Your task to perform on an android device: stop showing notifications on the lock screen Image 0: 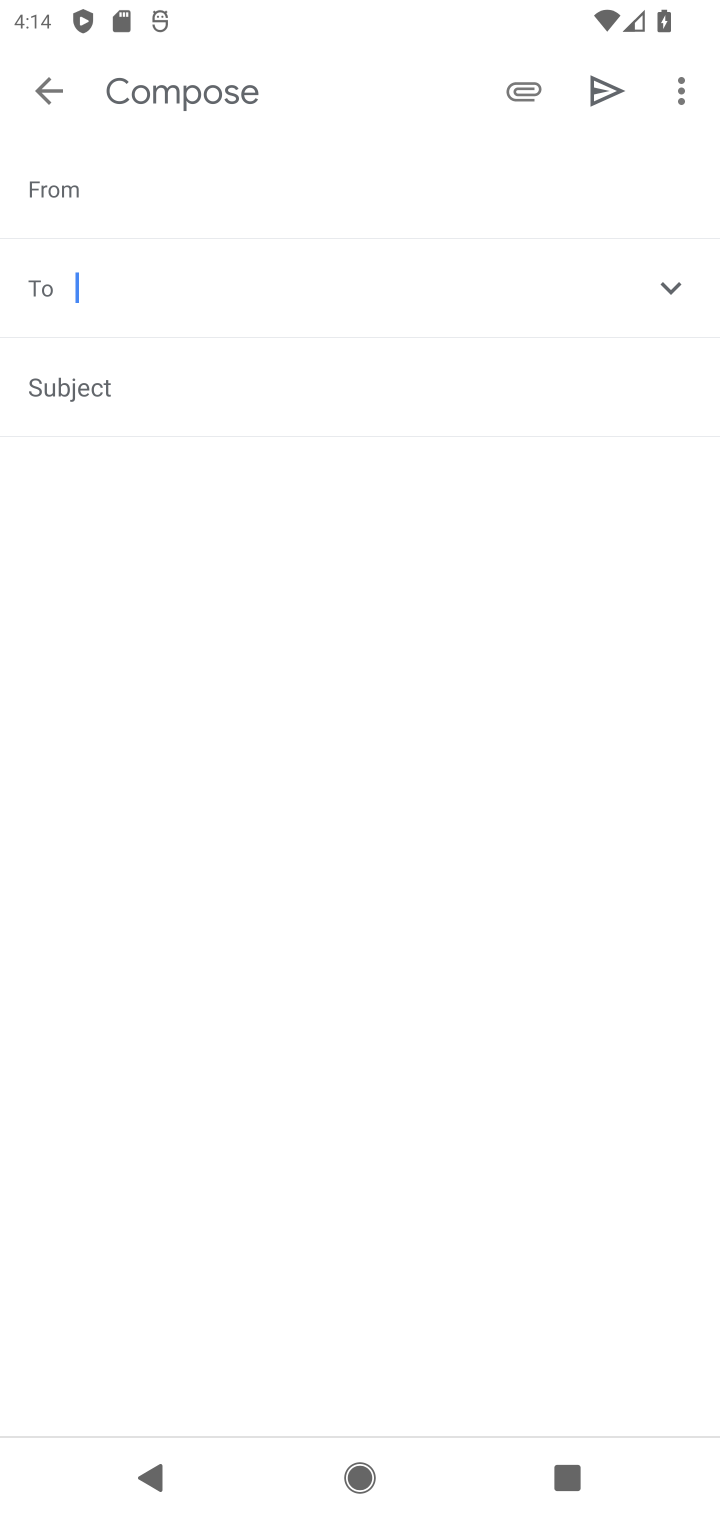
Step 0: press home button
Your task to perform on an android device: stop showing notifications on the lock screen Image 1: 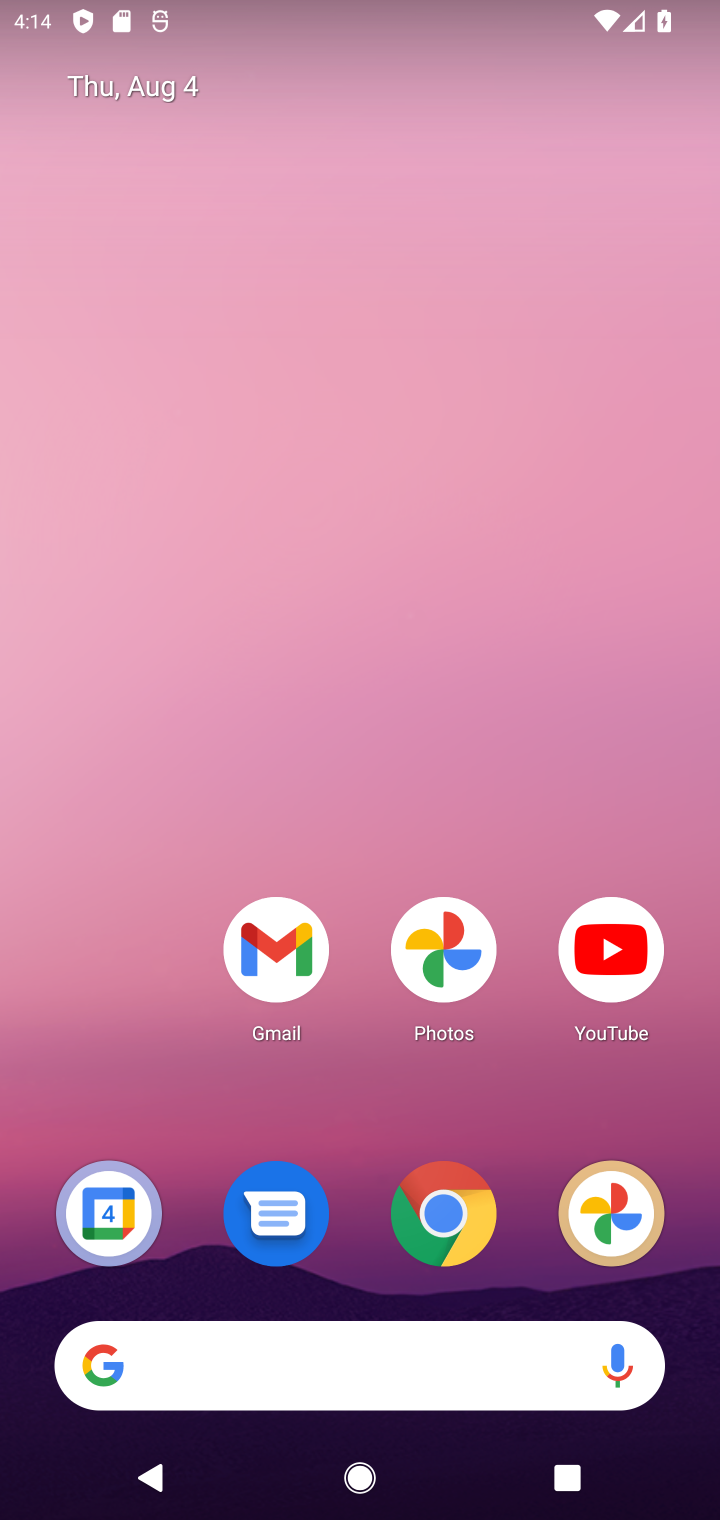
Step 1: drag from (179, 1174) to (174, 361)
Your task to perform on an android device: stop showing notifications on the lock screen Image 2: 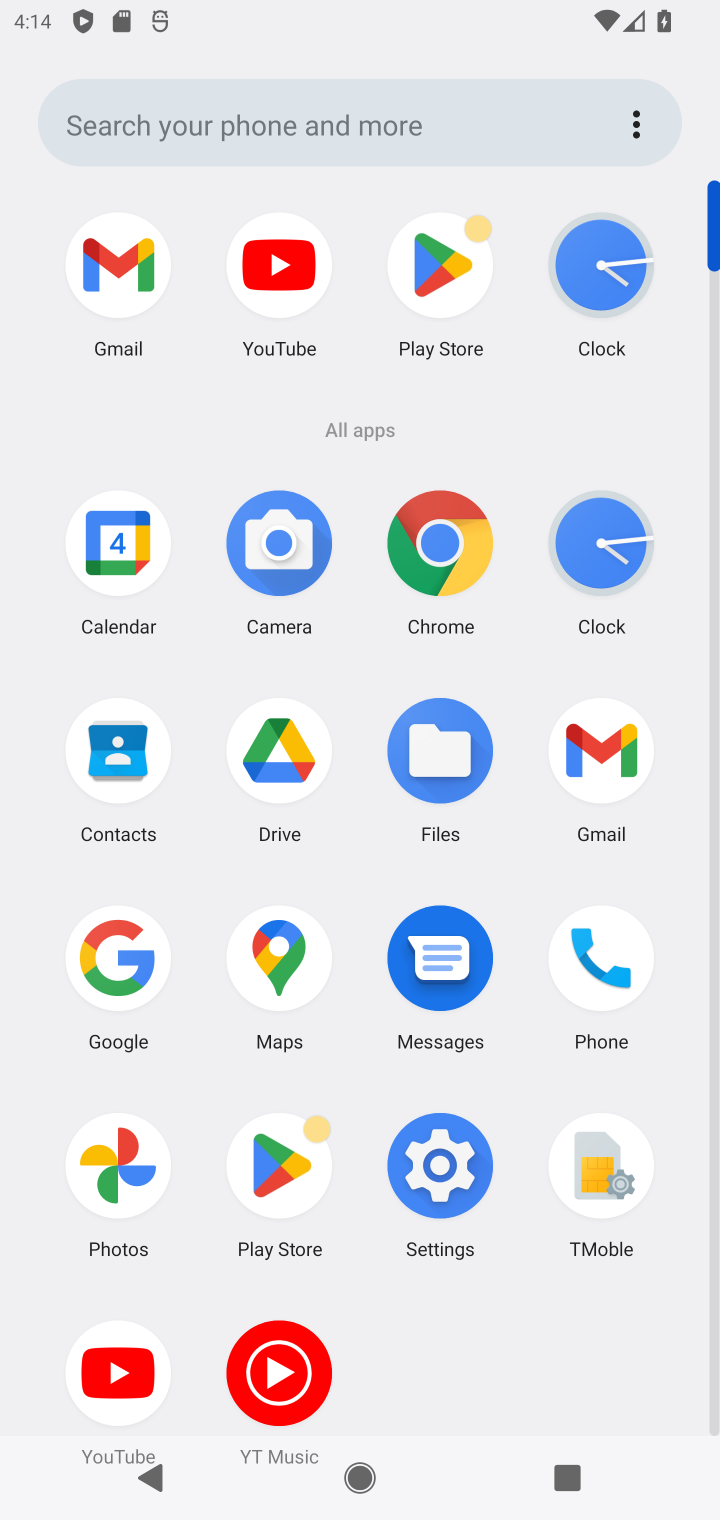
Step 2: click (443, 1174)
Your task to perform on an android device: stop showing notifications on the lock screen Image 3: 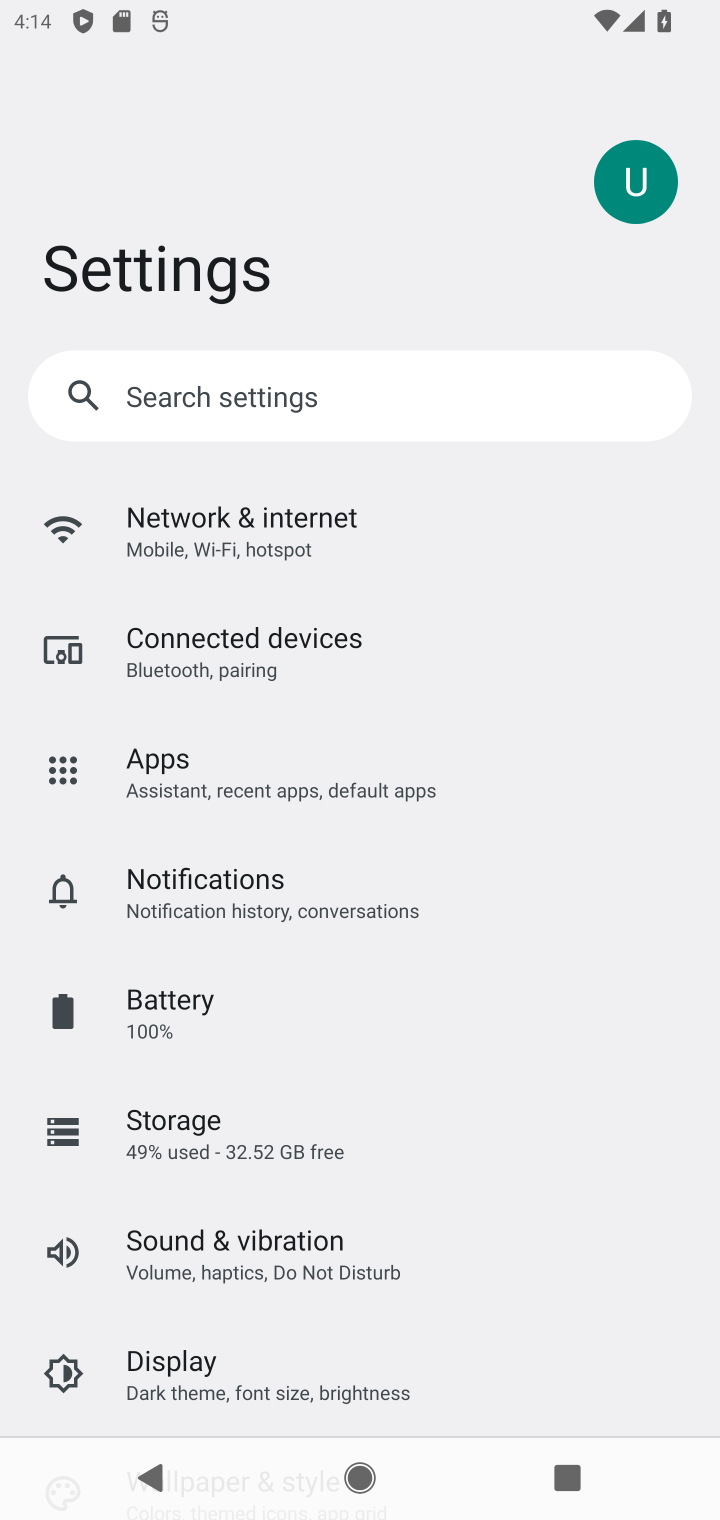
Step 3: click (329, 896)
Your task to perform on an android device: stop showing notifications on the lock screen Image 4: 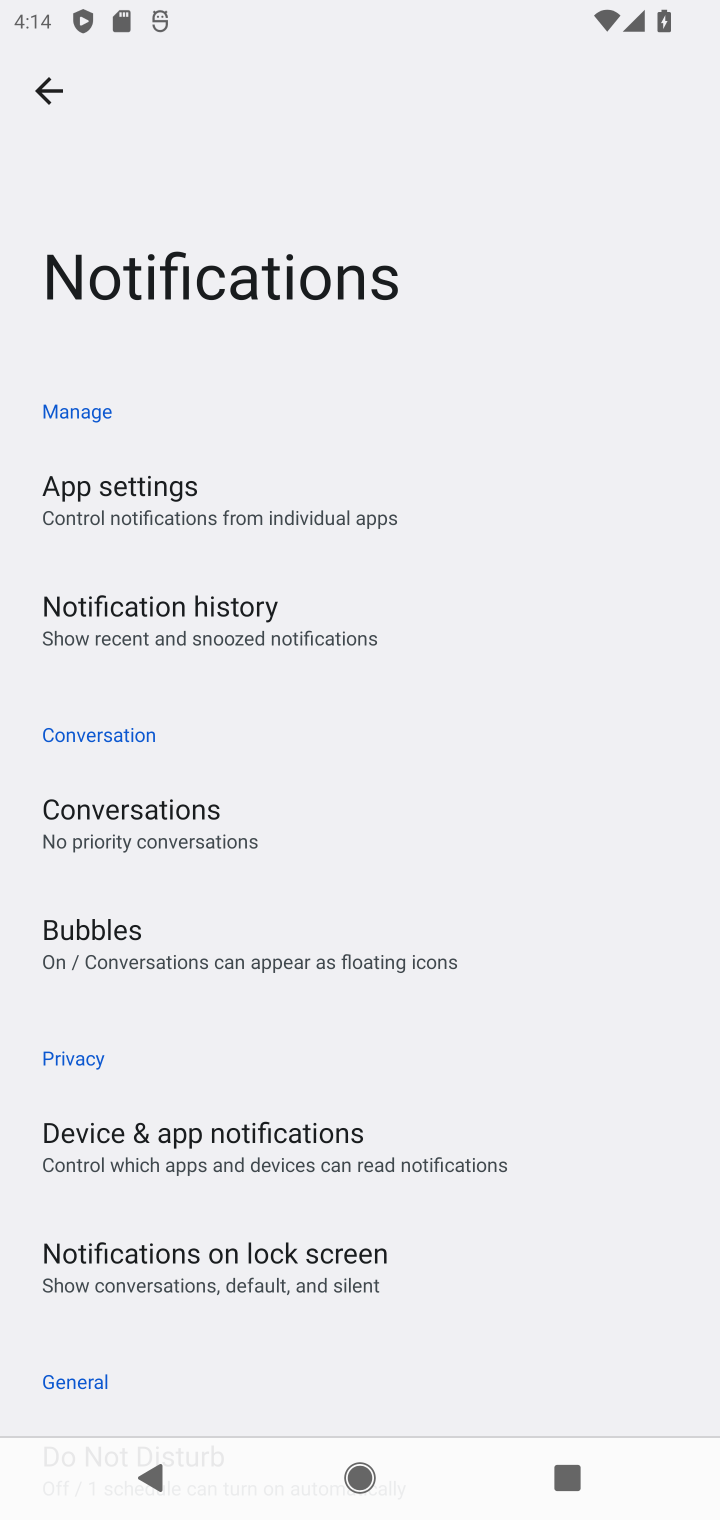
Step 4: drag from (587, 1171) to (627, 1004)
Your task to perform on an android device: stop showing notifications on the lock screen Image 5: 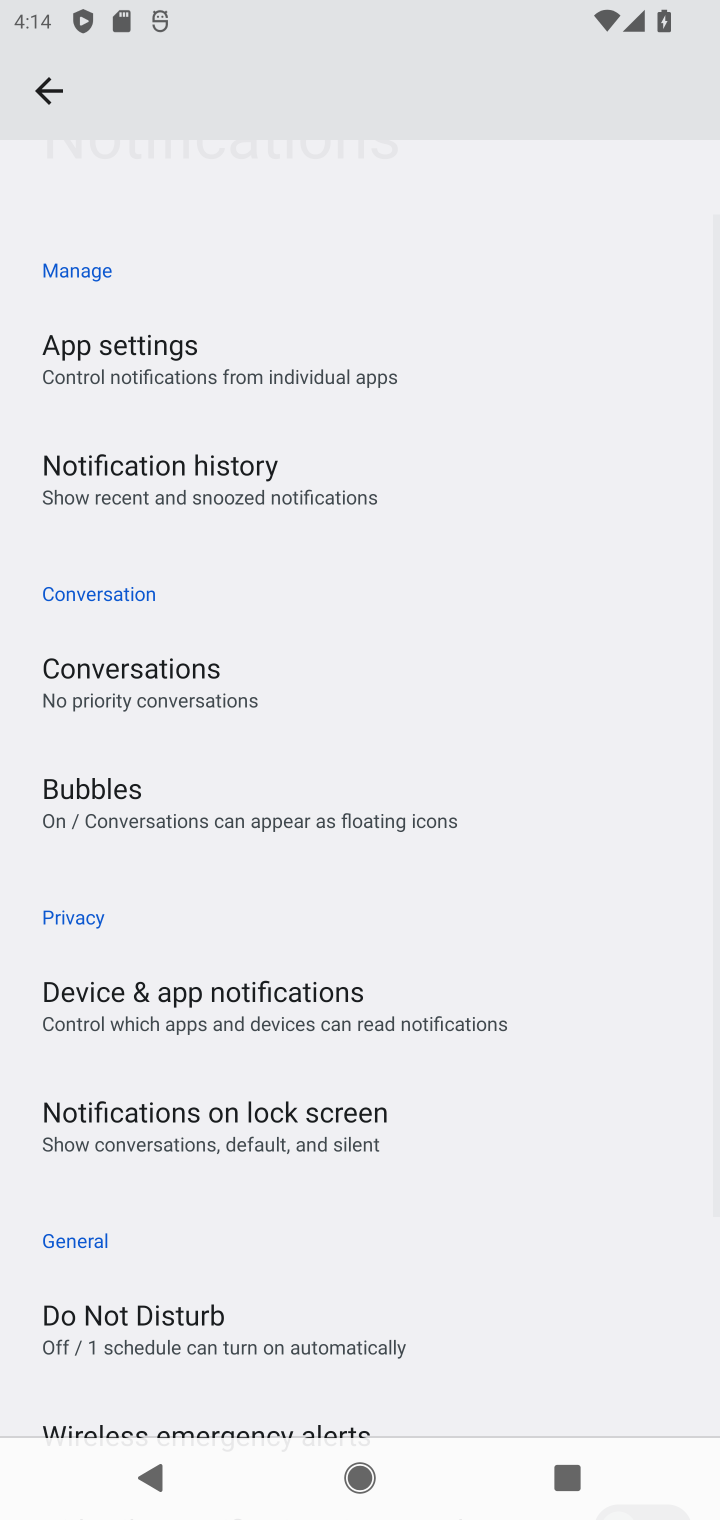
Step 5: drag from (612, 1144) to (636, 971)
Your task to perform on an android device: stop showing notifications on the lock screen Image 6: 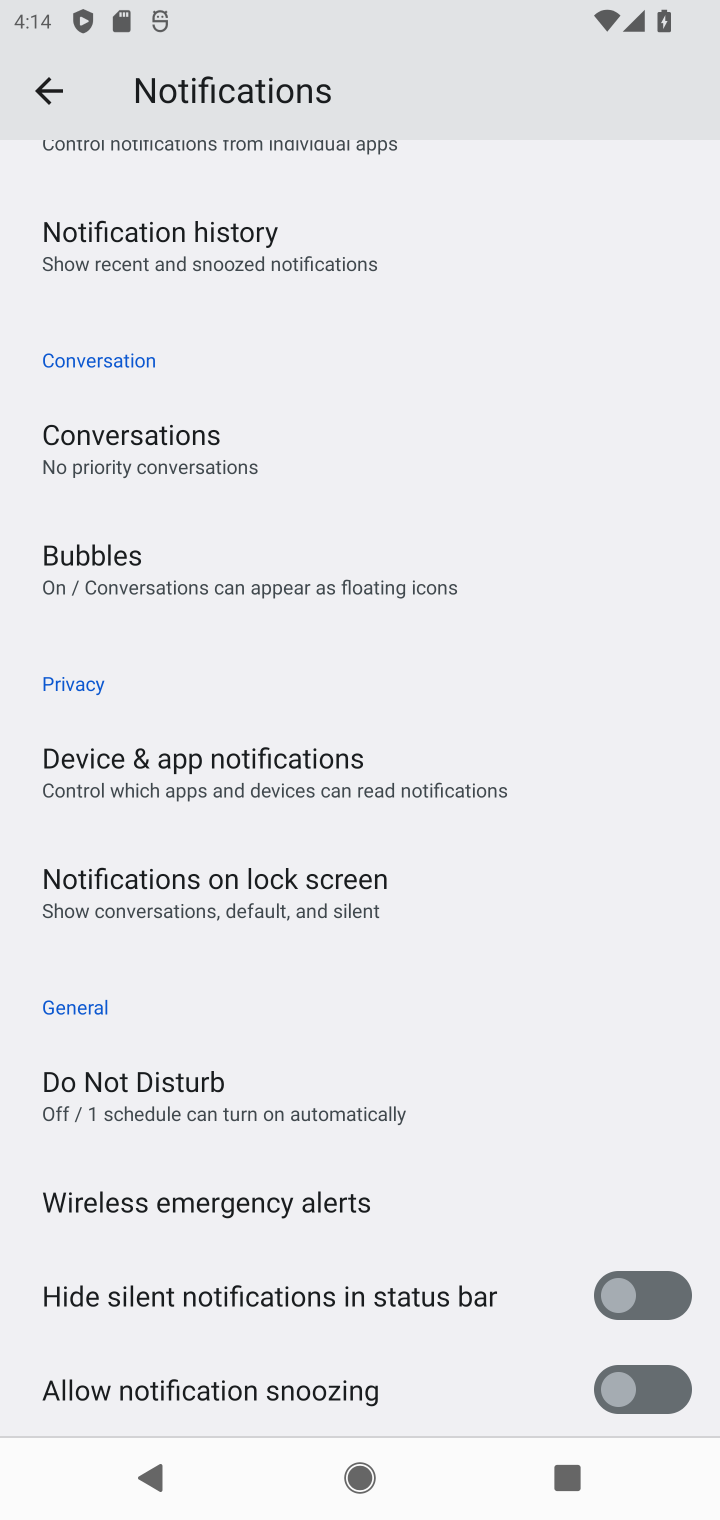
Step 6: drag from (520, 1182) to (524, 918)
Your task to perform on an android device: stop showing notifications on the lock screen Image 7: 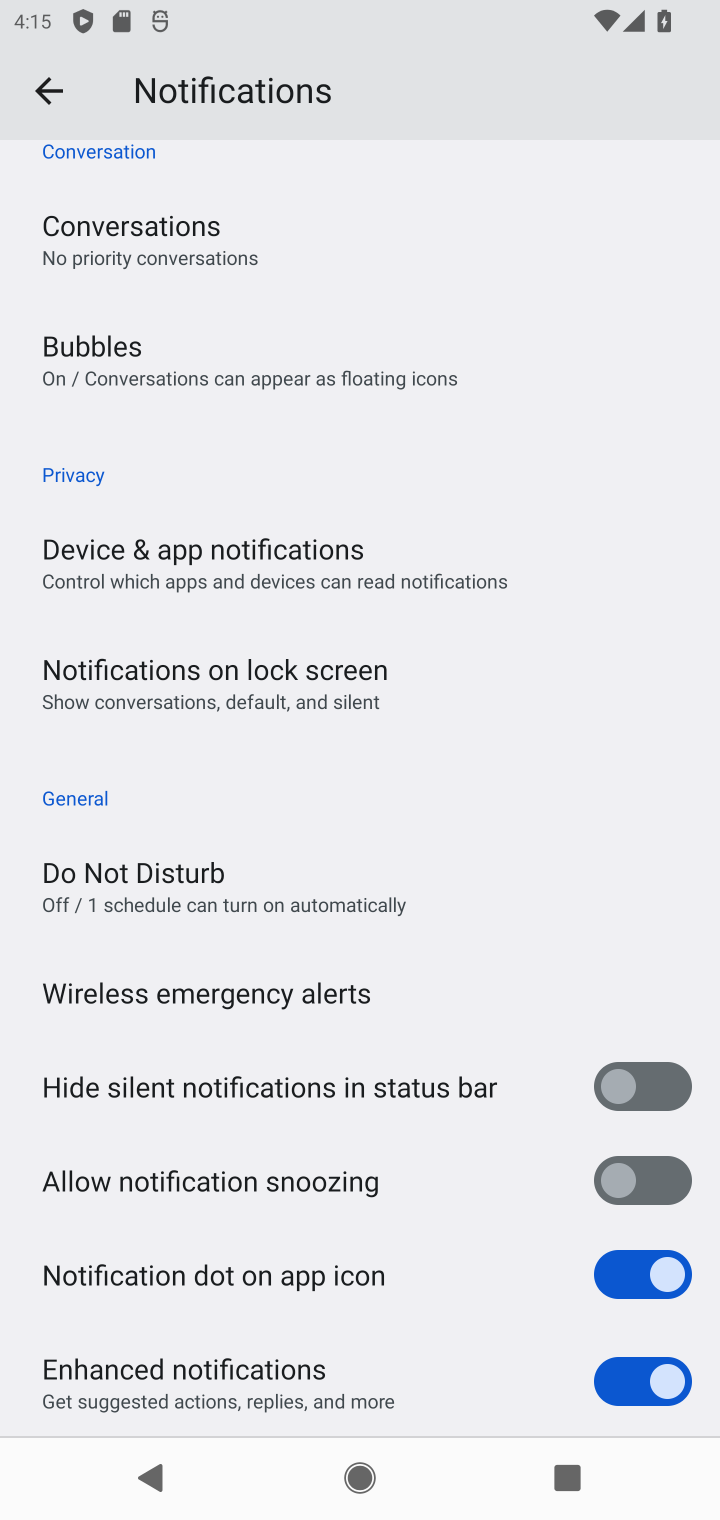
Step 7: click (367, 685)
Your task to perform on an android device: stop showing notifications on the lock screen Image 8: 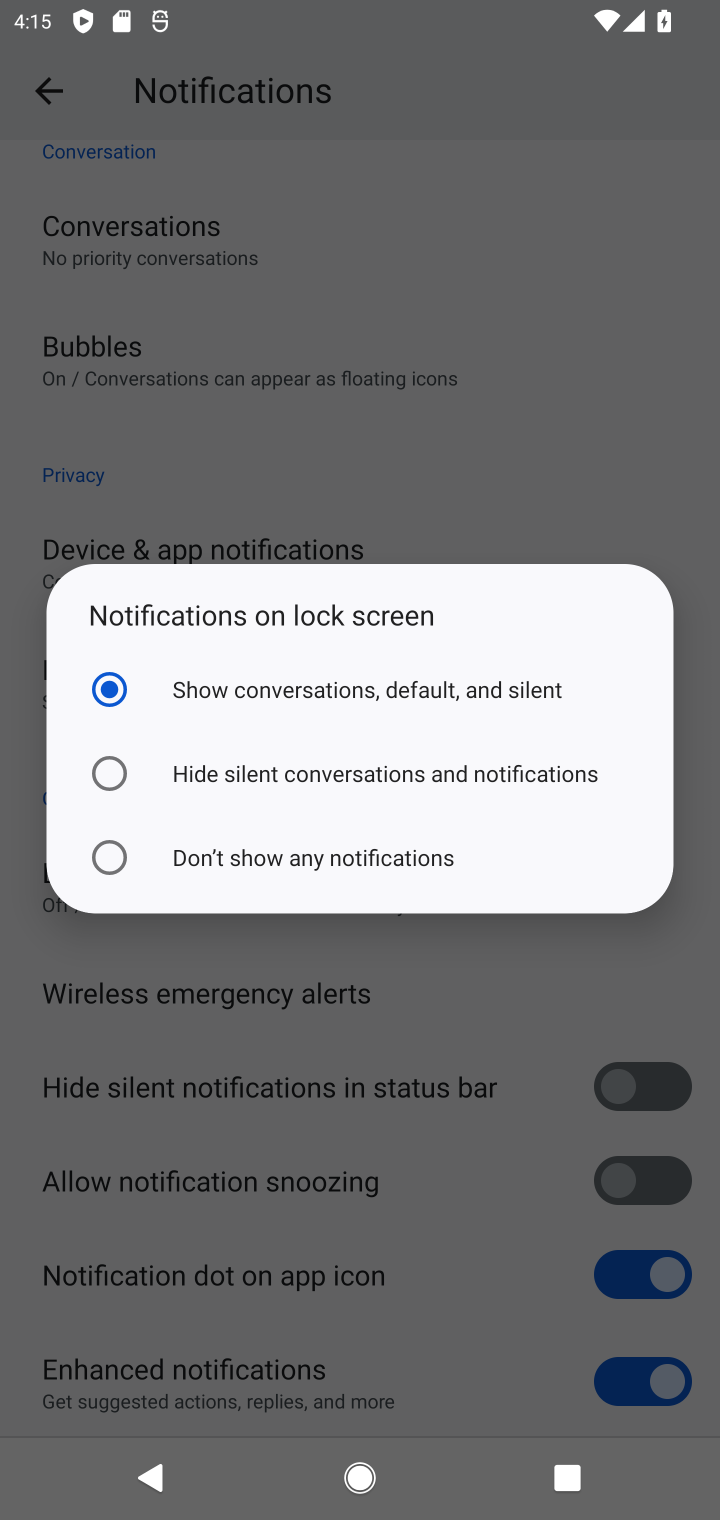
Step 8: click (365, 860)
Your task to perform on an android device: stop showing notifications on the lock screen Image 9: 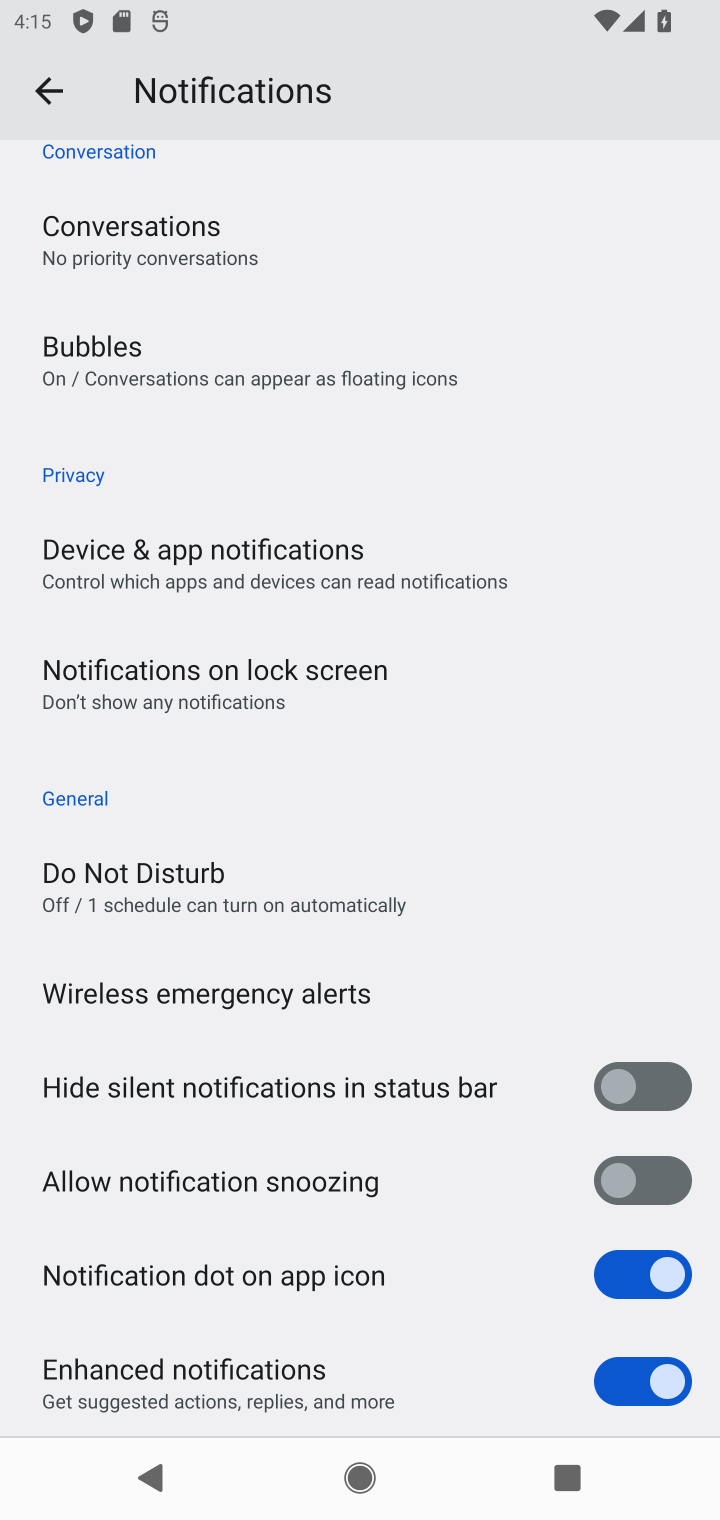
Step 9: task complete